Your task to perform on an android device: change the clock display to digital Image 0: 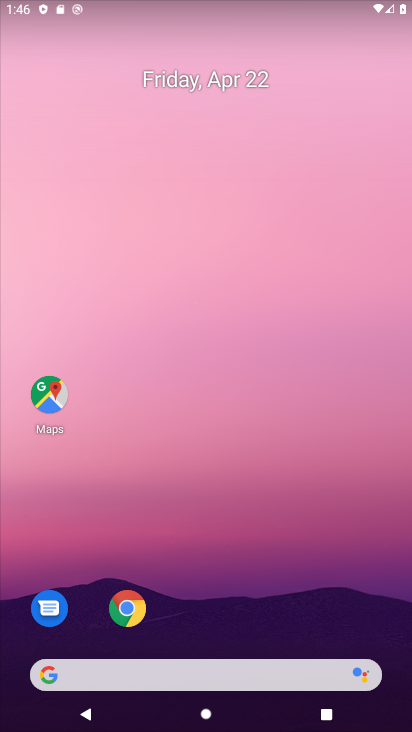
Step 0: drag from (271, 577) to (273, 89)
Your task to perform on an android device: change the clock display to digital Image 1: 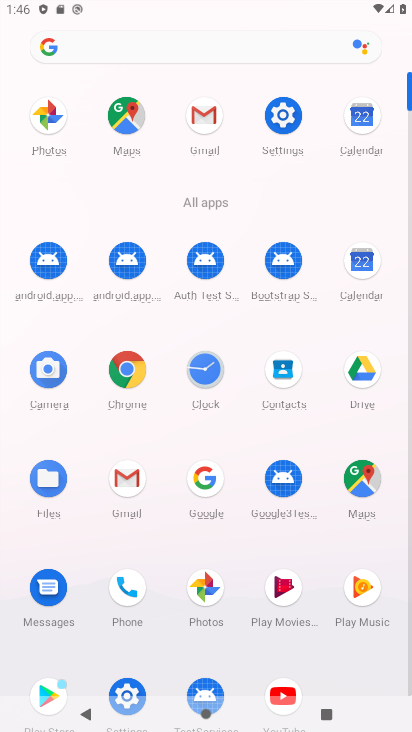
Step 1: click (204, 371)
Your task to perform on an android device: change the clock display to digital Image 2: 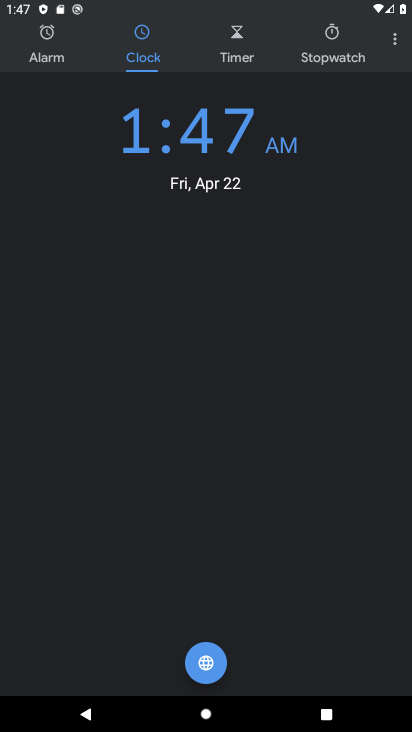
Step 2: click (397, 40)
Your task to perform on an android device: change the clock display to digital Image 3: 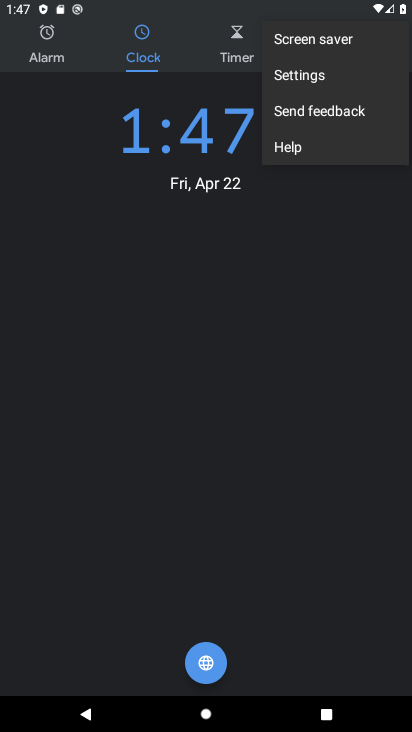
Step 3: click (335, 74)
Your task to perform on an android device: change the clock display to digital Image 4: 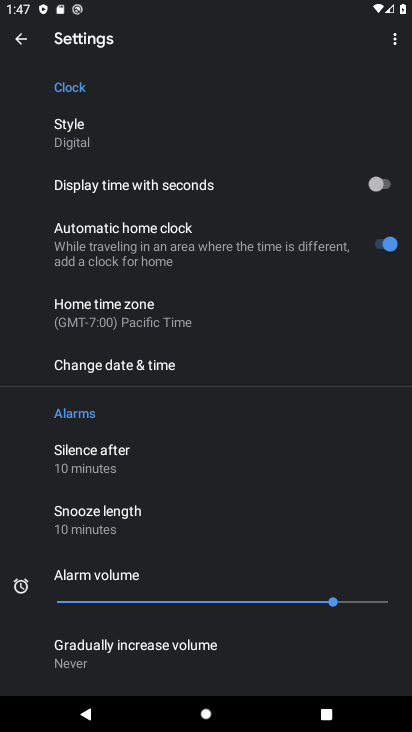
Step 4: click (107, 148)
Your task to perform on an android device: change the clock display to digital Image 5: 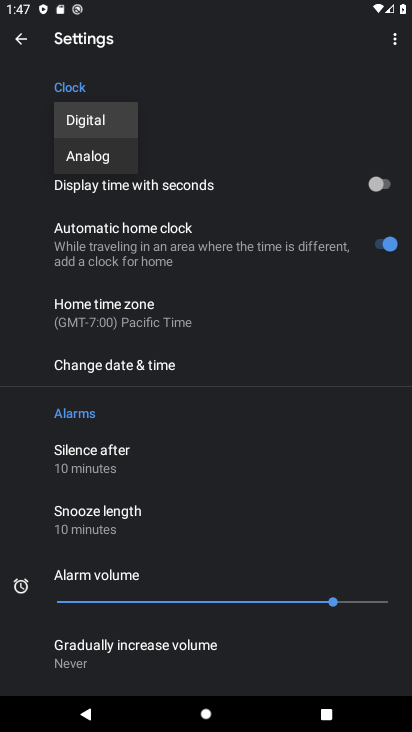
Step 5: click (101, 122)
Your task to perform on an android device: change the clock display to digital Image 6: 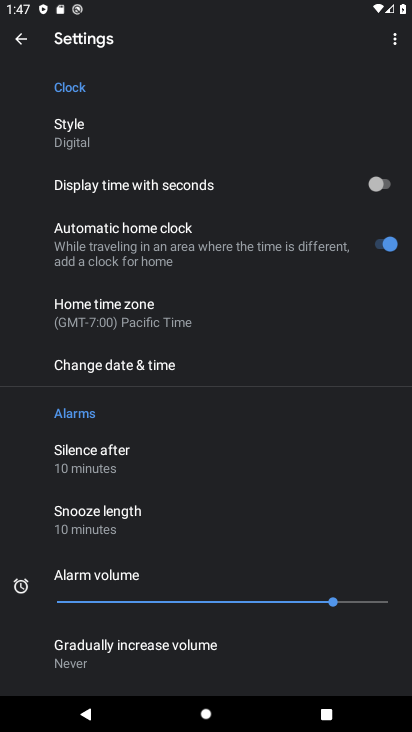
Step 6: task complete